Your task to perform on an android device: Open settings Image 0: 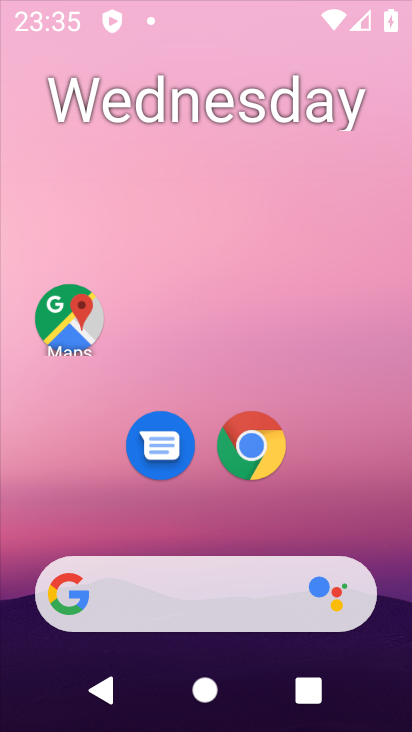
Step 0: click (247, 453)
Your task to perform on an android device: Open settings Image 1: 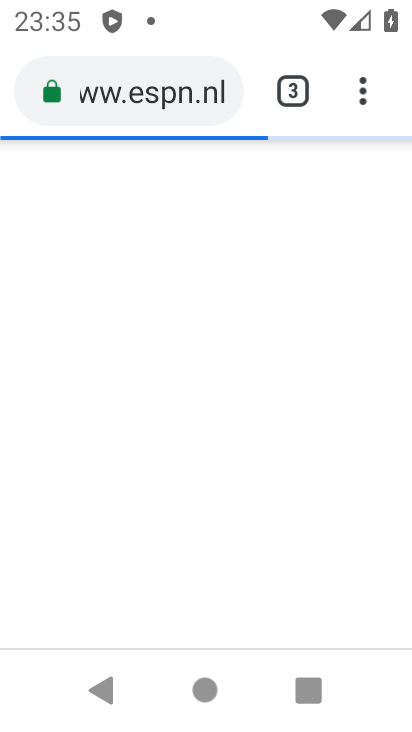
Step 1: press home button
Your task to perform on an android device: Open settings Image 2: 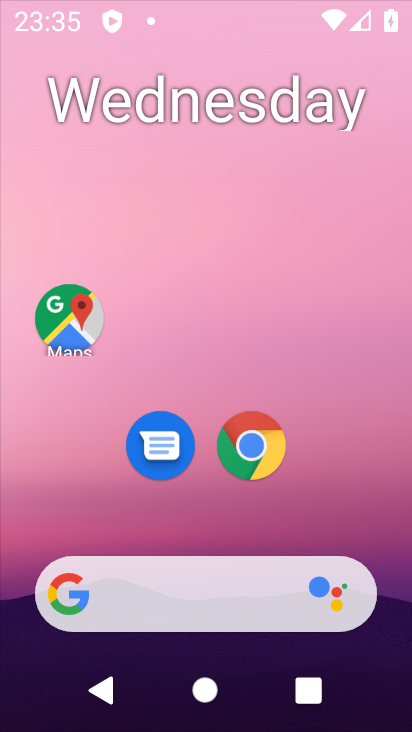
Step 2: drag from (182, 555) to (244, 83)
Your task to perform on an android device: Open settings Image 3: 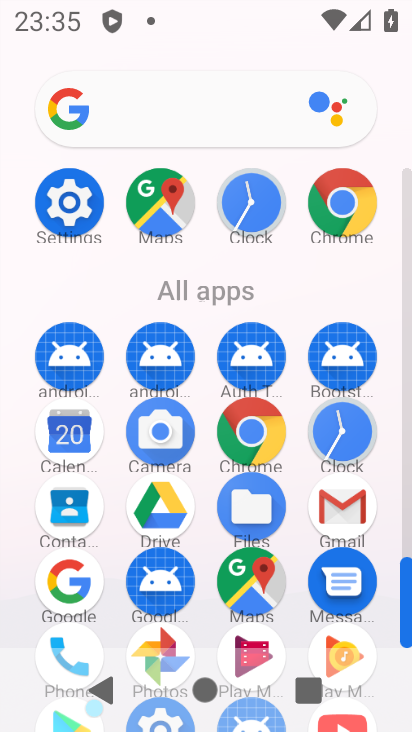
Step 3: click (74, 197)
Your task to perform on an android device: Open settings Image 4: 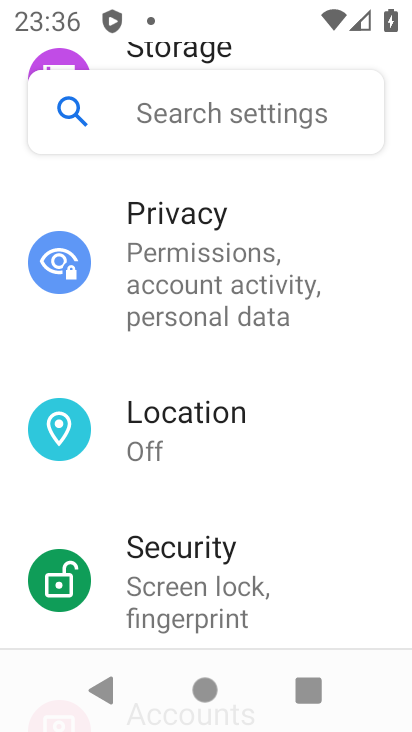
Step 4: task complete